Your task to perform on an android device: turn on the 12-hour format for clock Image 0: 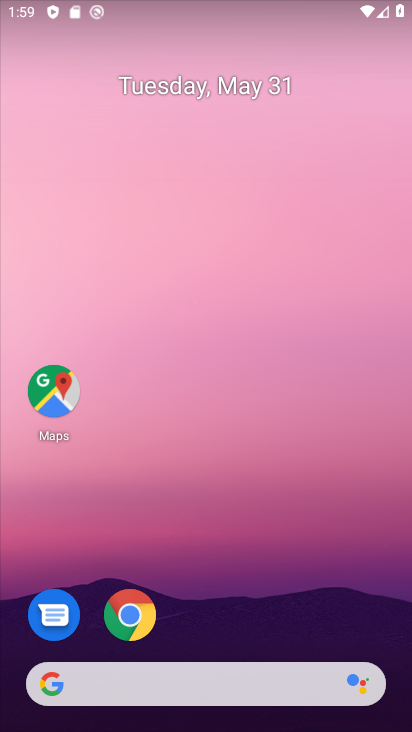
Step 0: drag from (229, 444) to (229, 0)
Your task to perform on an android device: turn on the 12-hour format for clock Image 1: 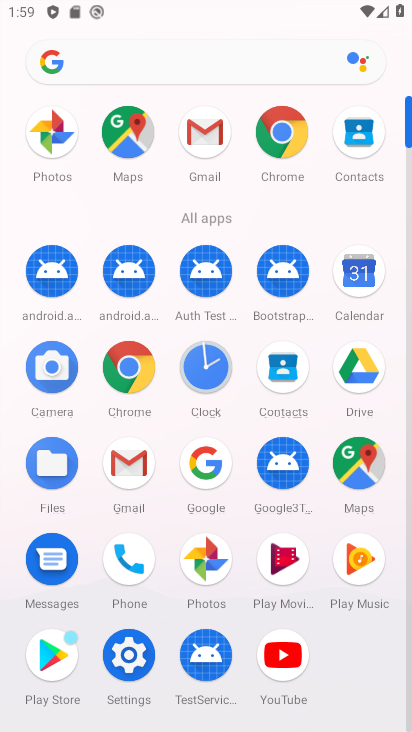
Step 1: click (198, 356)
Your task to perform on an android device: turn on the 12-hour format for clock Image 2: 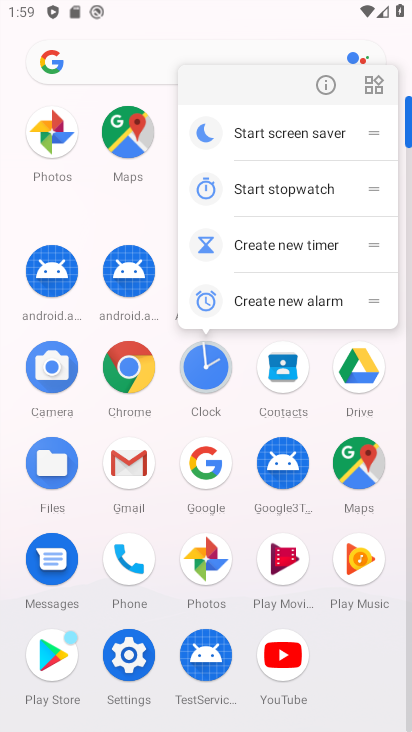
Step 2: click (207, 370)
Your task to perform on an android device: turn on the 12-hour format for clock Image 3: 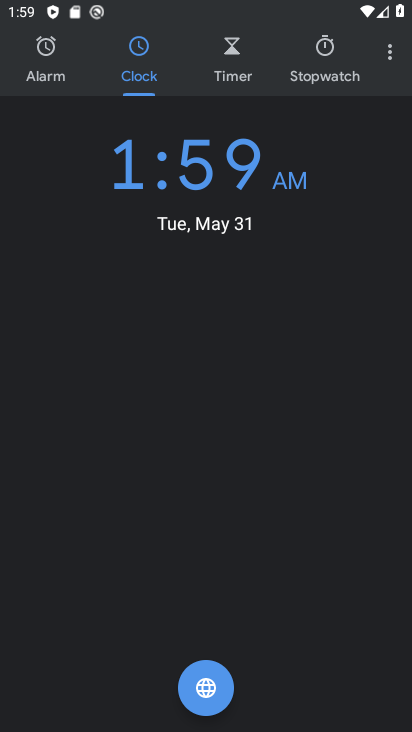
Step 3: click (387, 50)
Your task to perform on an android device: turn on the 12-hour format for clock Image 4: 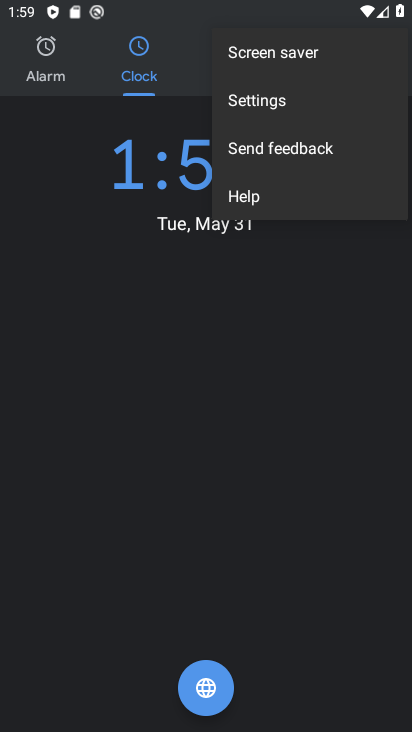
Step 4: click (277, 101)
Your task to perform on an android device: turn on the 12-hour format for clock Image 5: 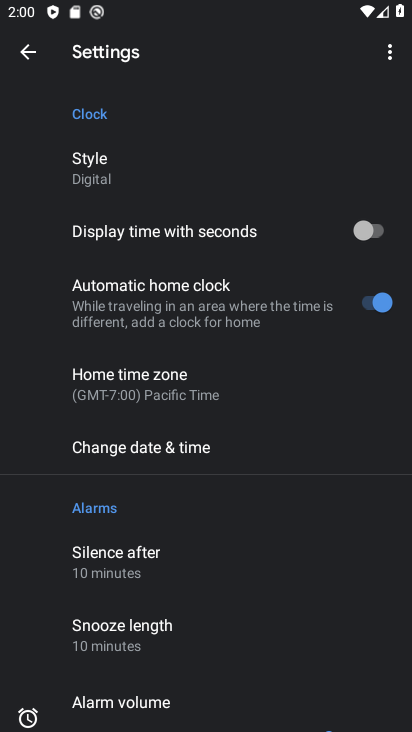
Step 5: click (162, 447)
Your task to perform on an android device: turn on the 12-hour format for clock Image 6: 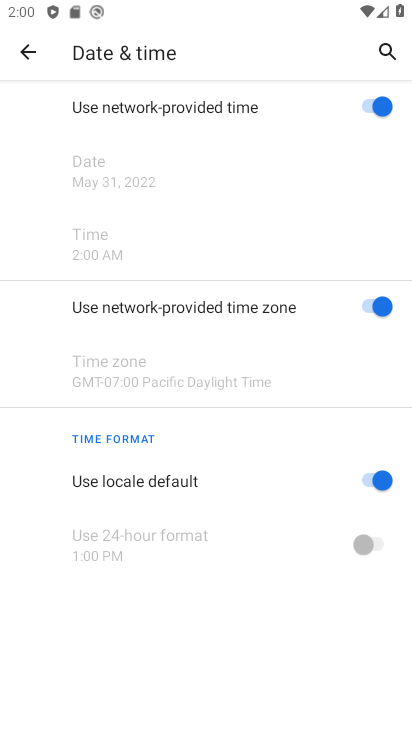
Step 6: task complete